Your task to perform on an android device: Search for Italian restaurants on Maps Image 0: 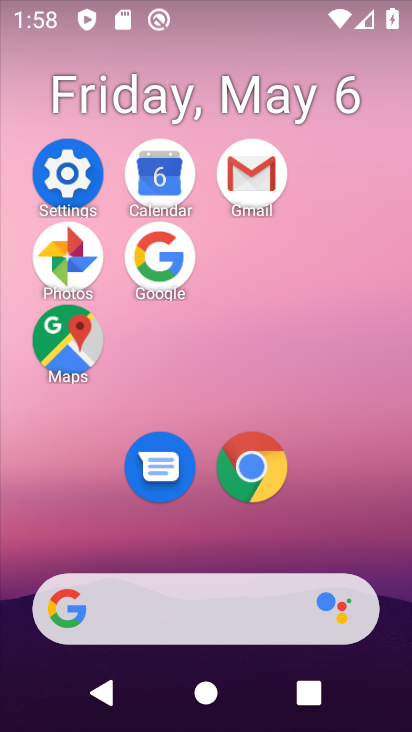
Step 0: click (74, 335)
Your task to perform on an android device: Search for Italian restaurants on Maps Image 1: 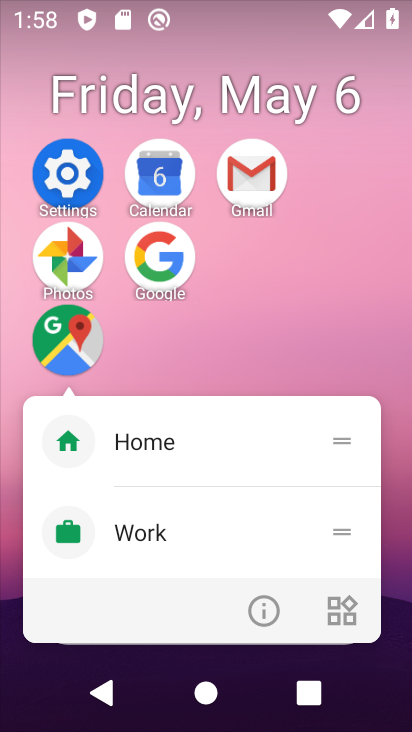
Step 1: click (74, 335)
Your task to perform on an android device: Search for Italian restaurants on Maps Image 2: 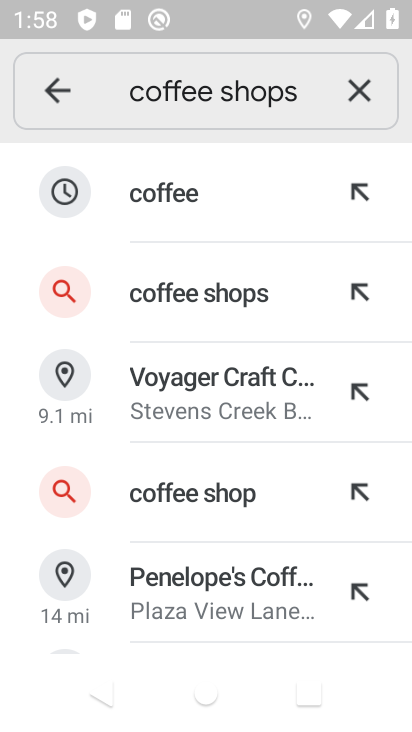
Step 2: click (359, 85)
Your task to perform on an android device: Search for Italian restaurants on Maps Image 3: 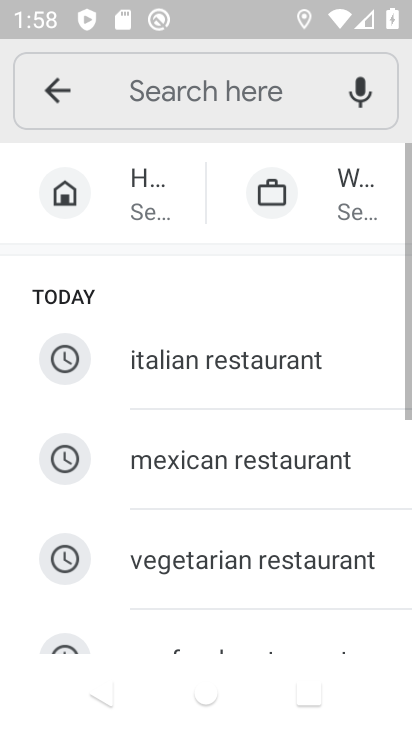
Step 3: click (229, 89)
Your task to perform on an android device: Search for Italian restaurants on Maps Image 4: 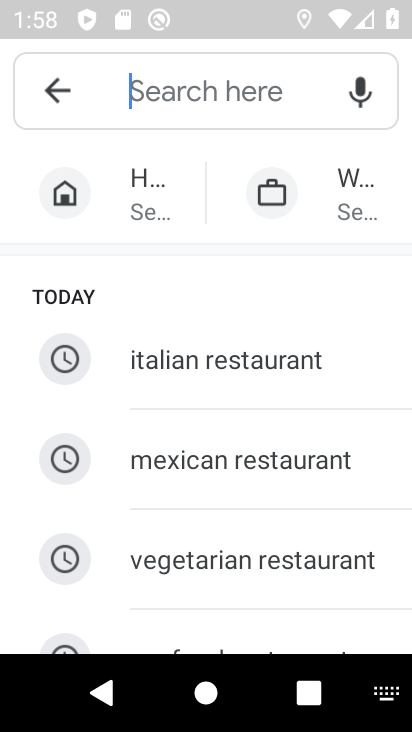
Step 4: type "italian restaurants"
Your task to perform on an android device: Search for Italian restaurants on Maps Image 5: 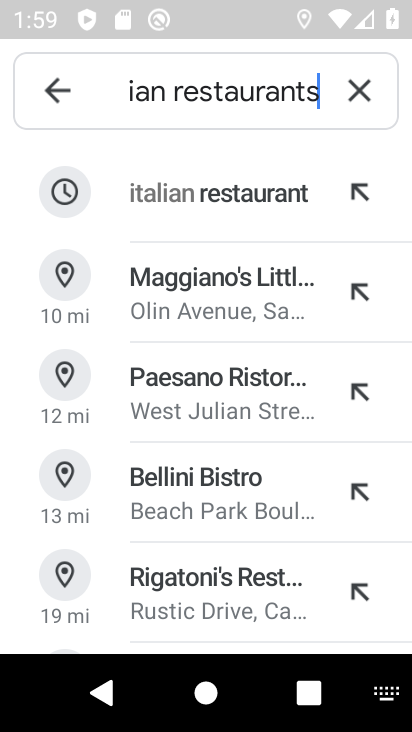
Step 5: task complete